Your task to perform on an android device: Open the calendar app, open the side menu, and click the "Day" option Image 0: 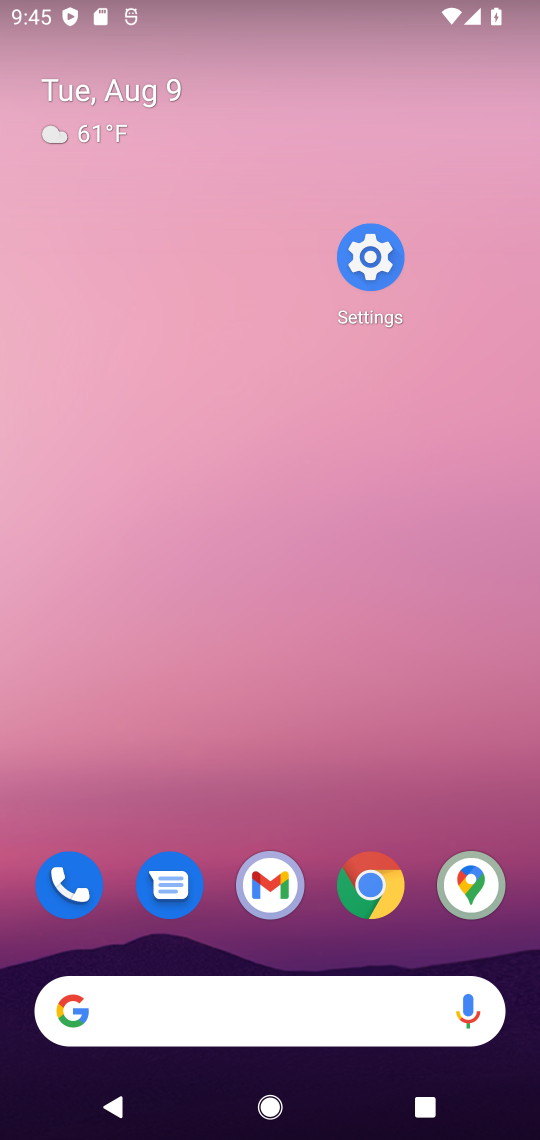
Step 0: press home button
Your task to perform on an android device: Open the calendar app, open the side menu, and click the "Day" option Image 1: 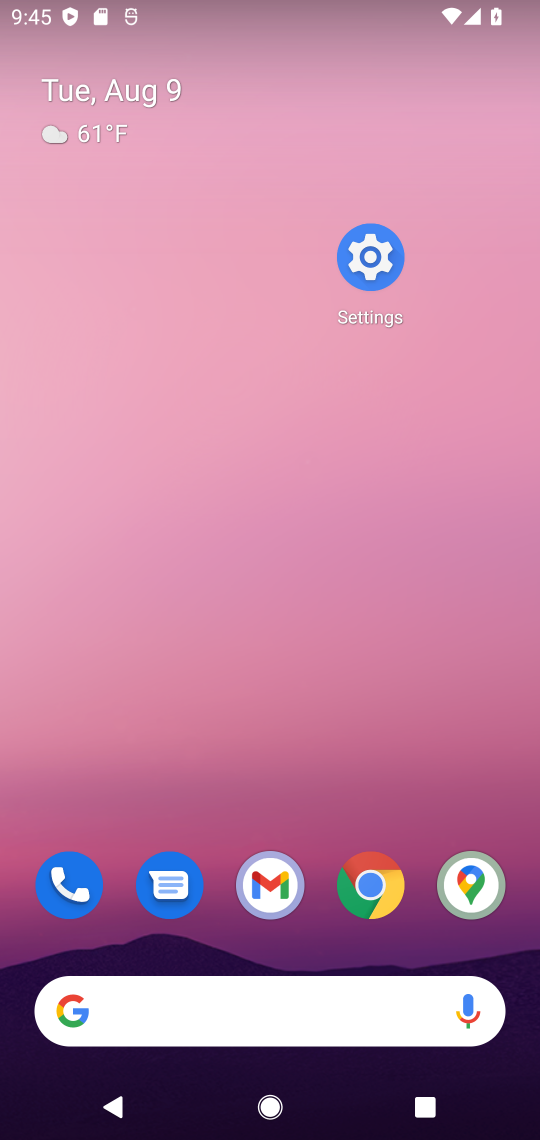
Step 1: drag from (326, 948) to (331, 101)
Your task to perform on an android device: Open the calendar app, open the side menu, and click the "Day" option Image 2: 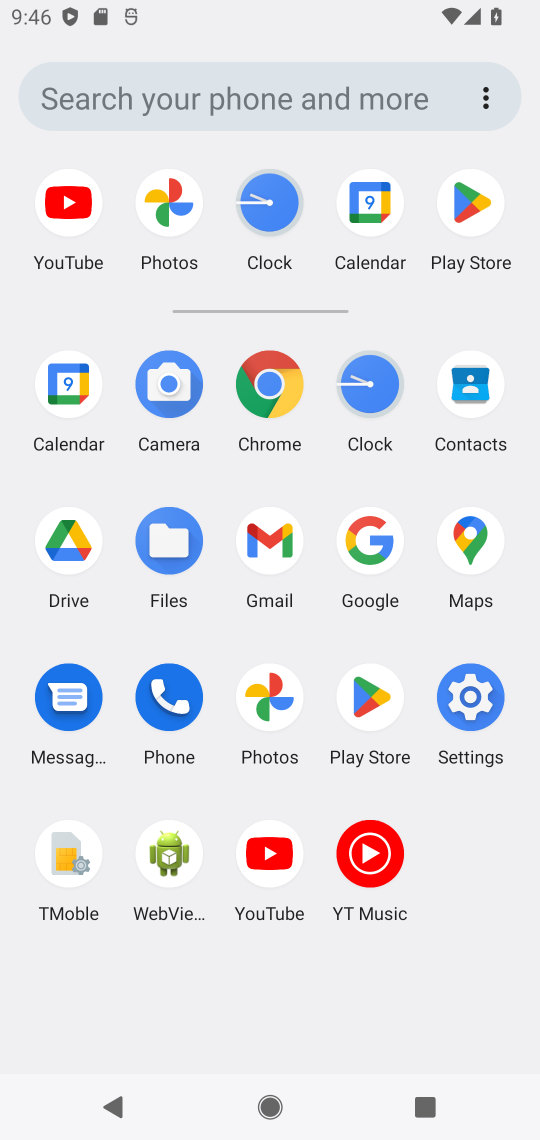
Step 2: click (65, 373)
Your task to perform on an android device: Open the calendar app, open the side menu, and click the "Day" option Image 3: 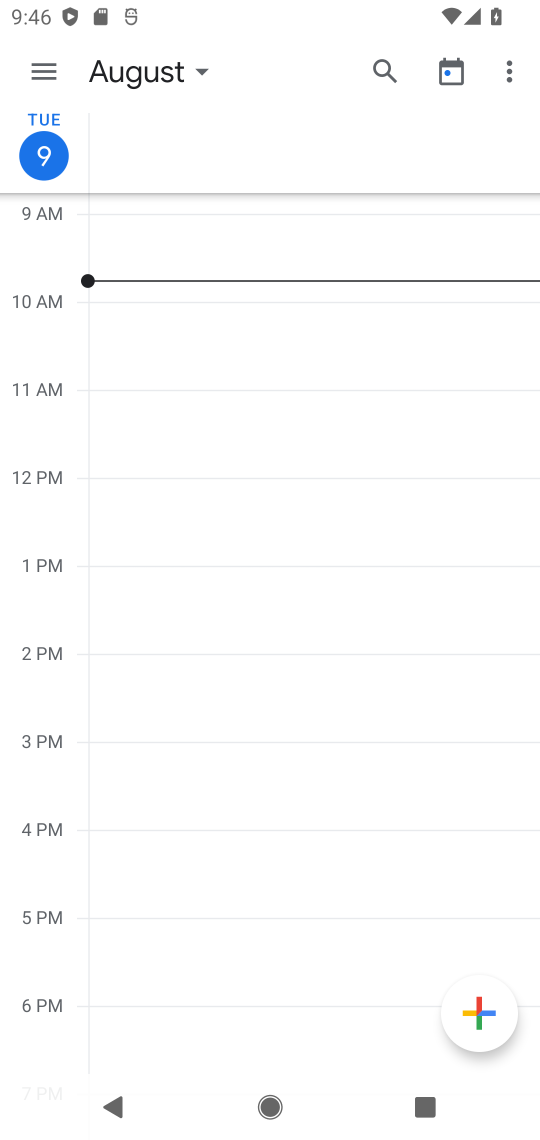
Step 3: click (42, 71)
Your task to perform on an android device: Open the calendar app, open the side menu, and click the "Day" option Image 4: 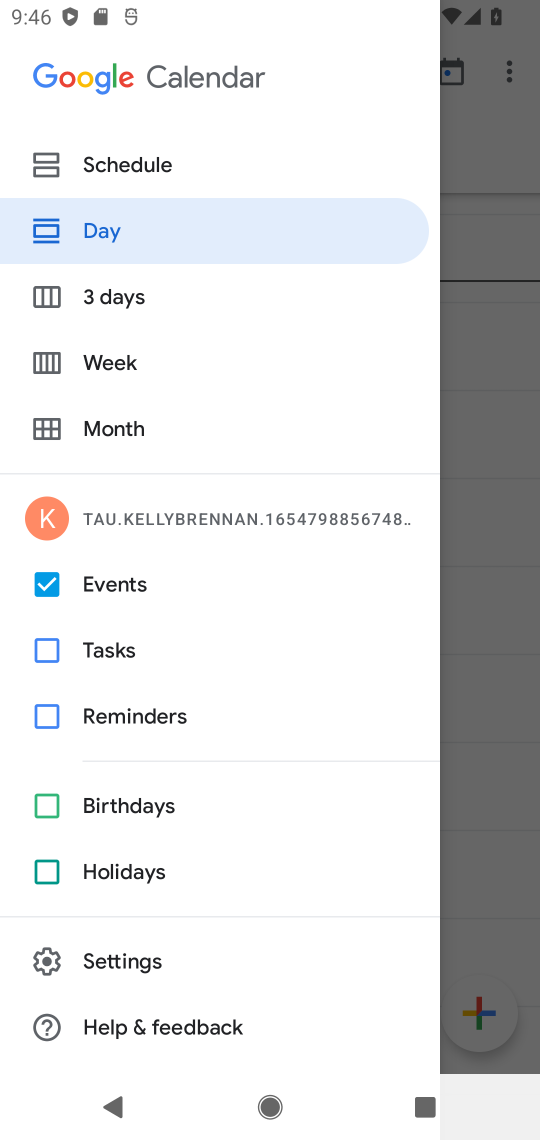
Step 4: click (108, 232)
Your task to perform on an android device: Open the calendar app, open the side menu, and click the "Day" option Image 5: 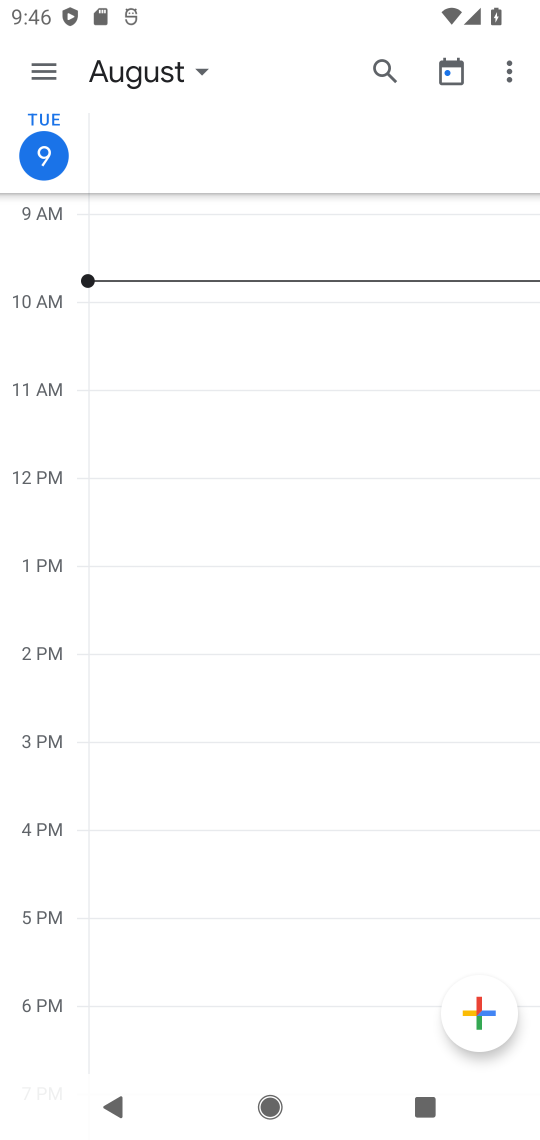
Step 5: task complete